Your task to perform on an android device: add a label to a message in the gmail app Image 0: 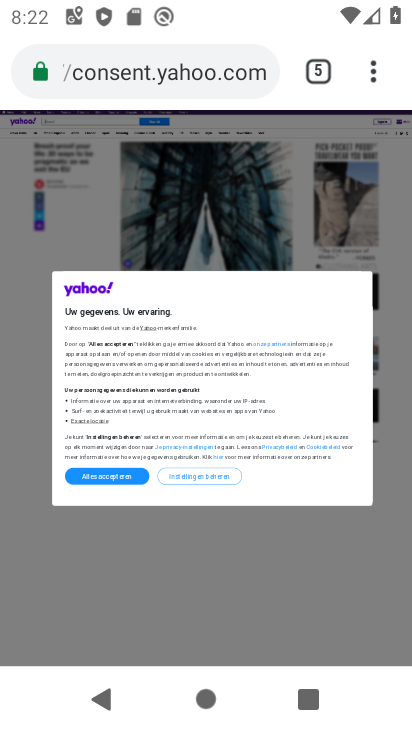
Step 0: press home button
Your task to perform on an android device: add a label to a message in the gmail app Image 1: 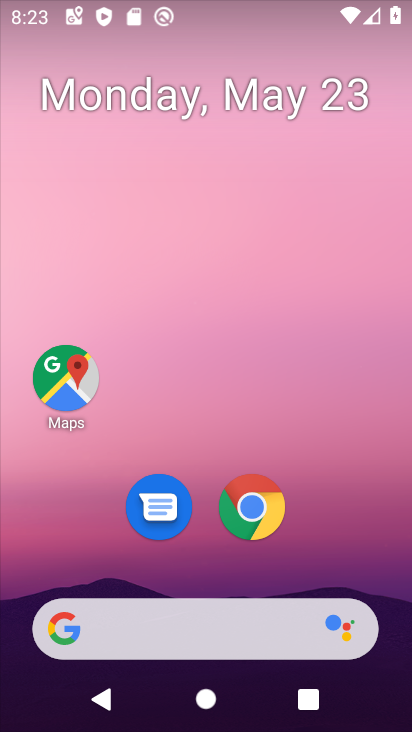
Step 1: drag from (352, 547) to (336, 104)
Your task to perform on an android device: add a label to a message in the gmail app Image 2: 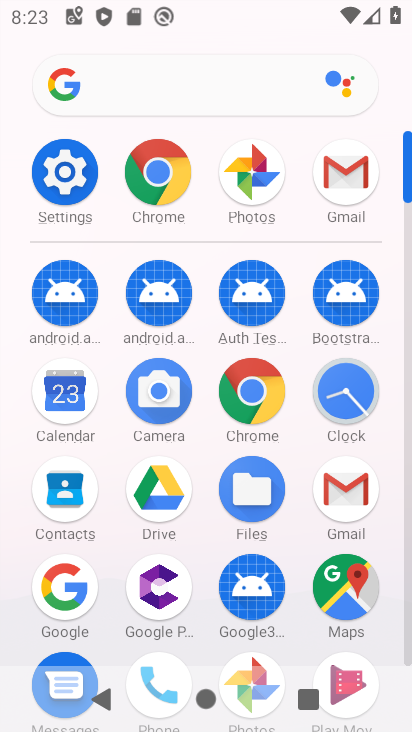
Step 2: click (338, 510)
Your task to perform on an android device: add a label to a message in the gmail app Image 3: 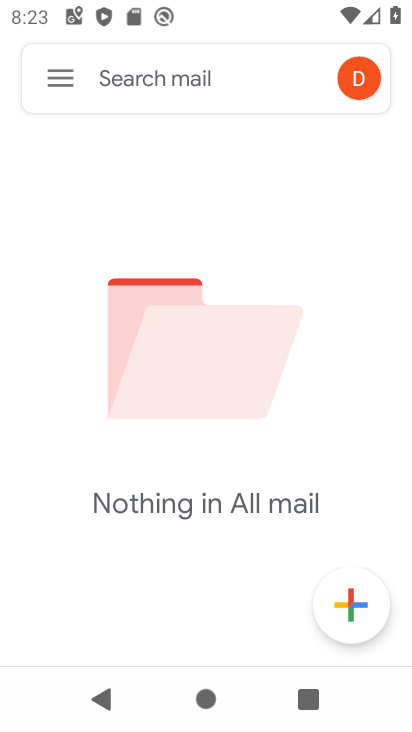
Step 3: task complete